Your task to perform on an android device: open a bookmark in the chrome app Image 0: 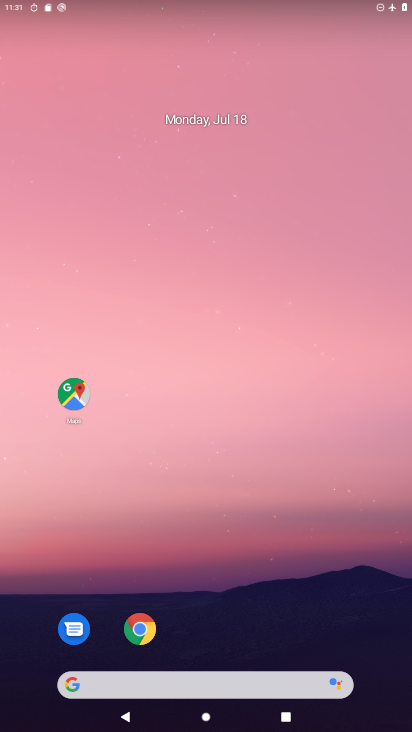
Step 0: drag from (325, 641) to (295, 92)
Your task to perform on an android device: open a bookmark in the chrome app Image 1: 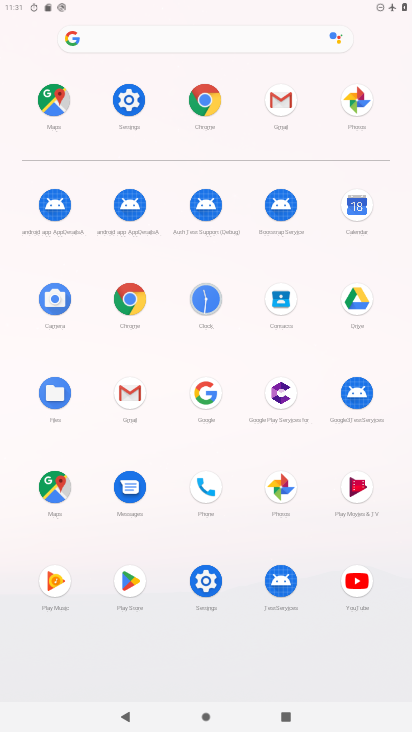
Step 1: click (208, 102)
Your task to perform on an android device: open a bookmark in the chrome app Image 2: 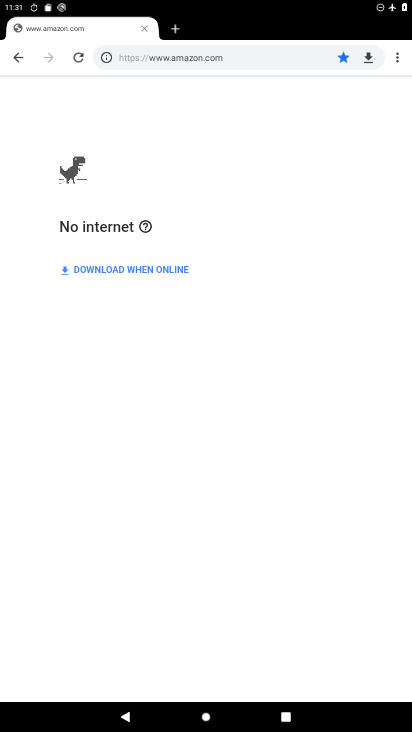
Step 2: drag from (394, 57) to (311, 166)
Your task to perform on an android device: open a bookmark in the chrome app Image 3: 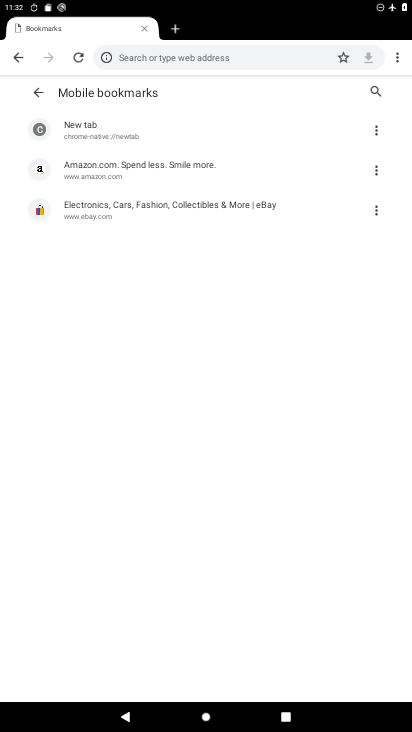
Step 3: click (114, 166)
Your task to perform on an android device: open a bookmark in the chrome app Image 4: 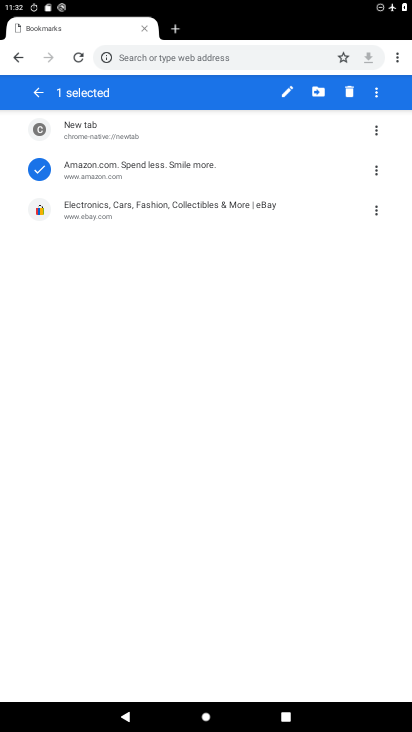
Step 4: click (198, 177)
Your task to perform on an android device: open a bookmark in the chrome app Image 5: 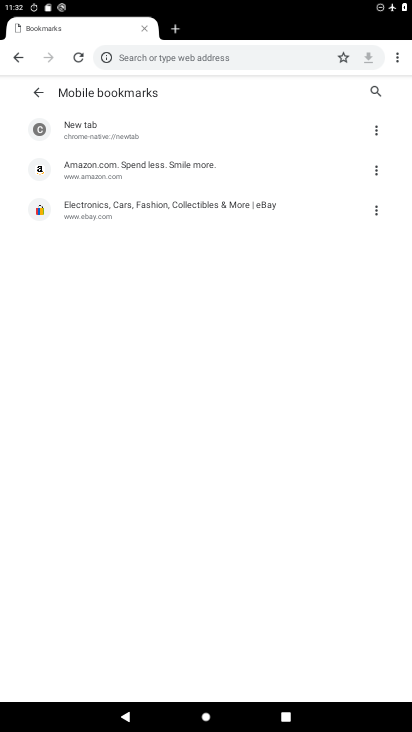
Step 5: click (180, 171)
Your task to perform on an android device: open a bookmark in the chrome app Image 6: 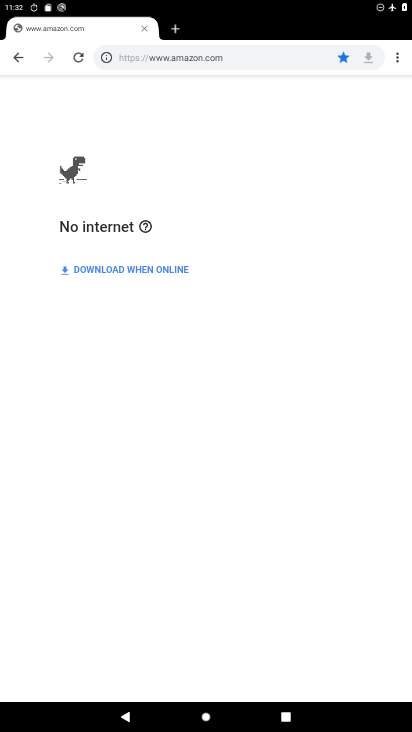
Step 6: task complete